Your task to perform on an android device: What's the weather going to be this weekend? Image 0: 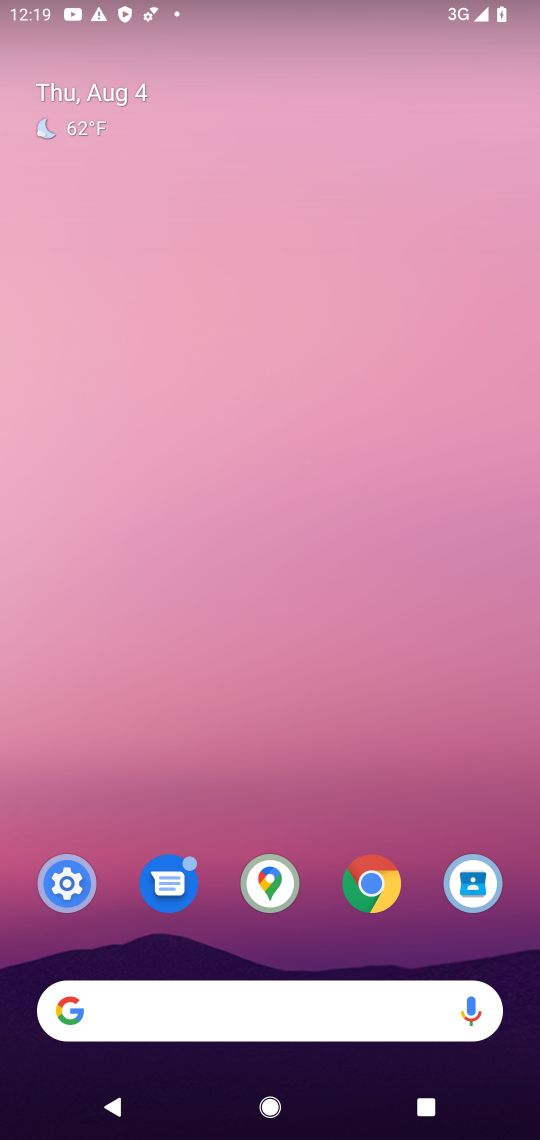
Step 0: drag from (226, 925) to (275, 674)
Your task to perform on an android device: What's the weather going to be this weekend? Image 1: 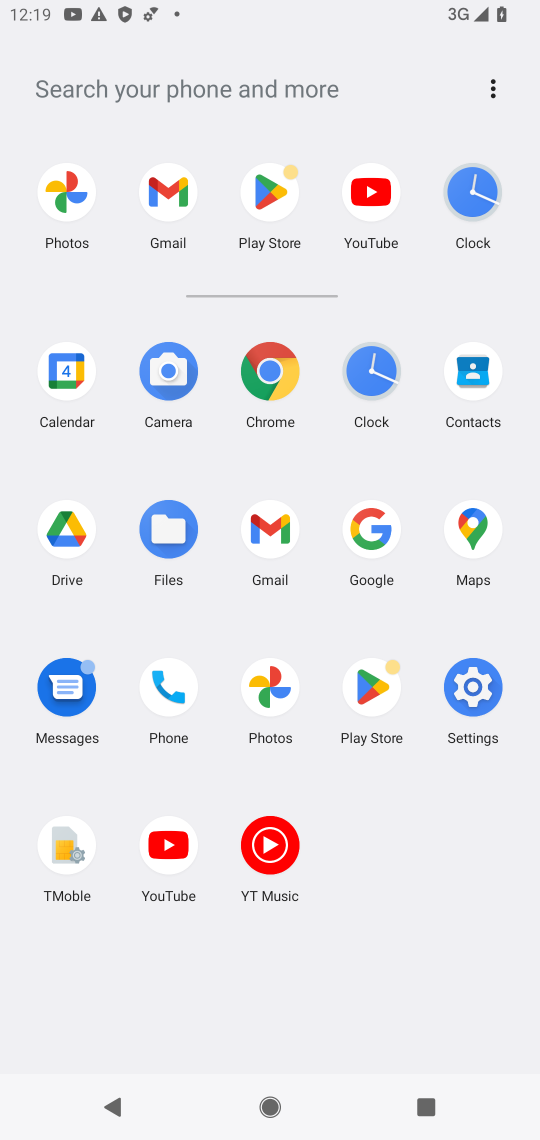
Step 1: click (453, 684)
Your task to perform on an android device: What's the weather going to be this weekend? Image 2: 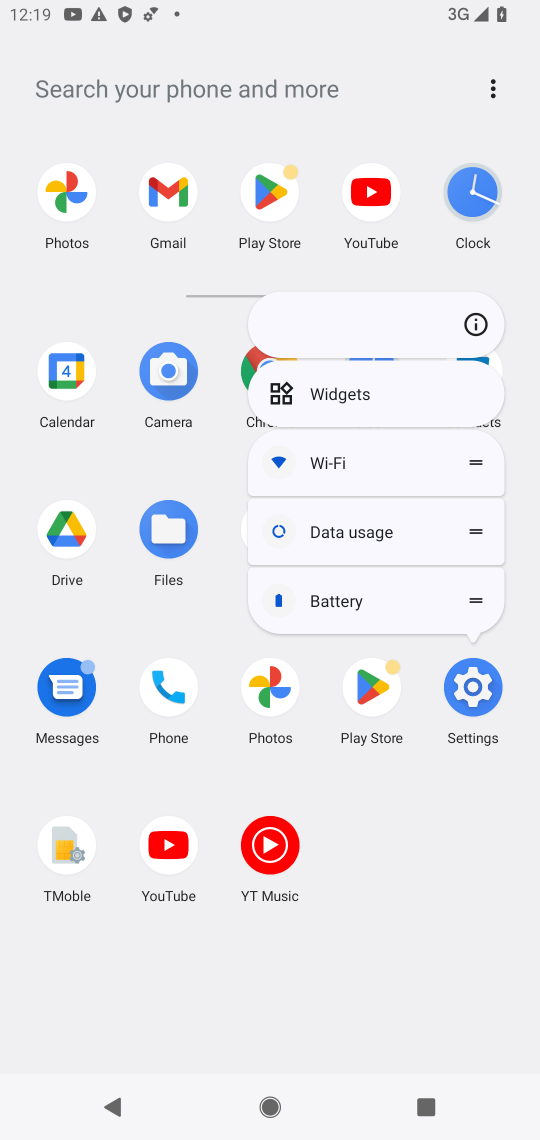
Step 2: click (461, 327)
Your task to perform on an android device: What's the weather going to be this weekend? Image 3: 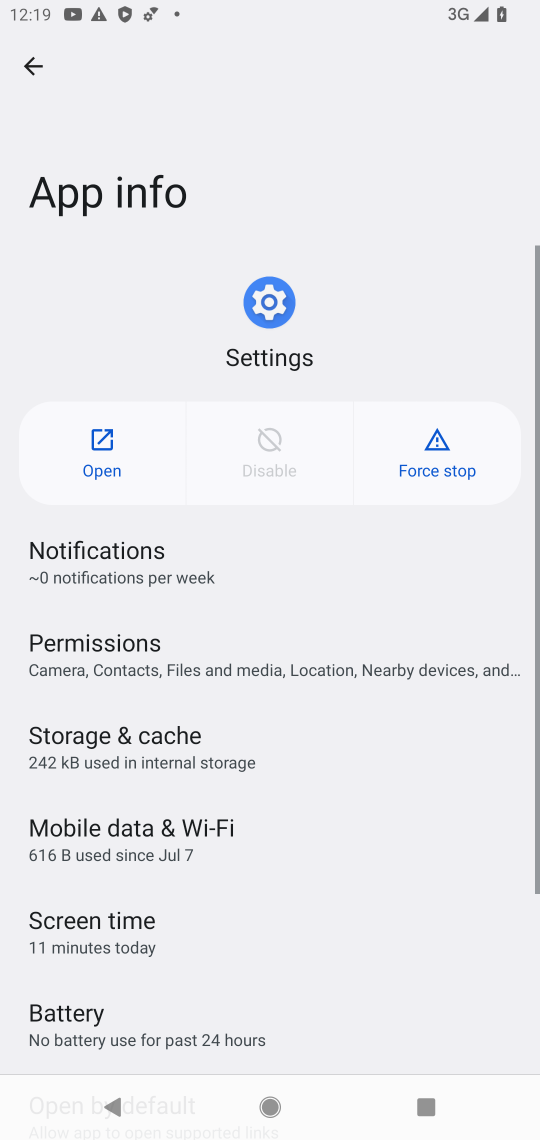
Step 3: click (102, 454)
Your task to perform on an android device: What's the weather going to be this weekend? Image 4: 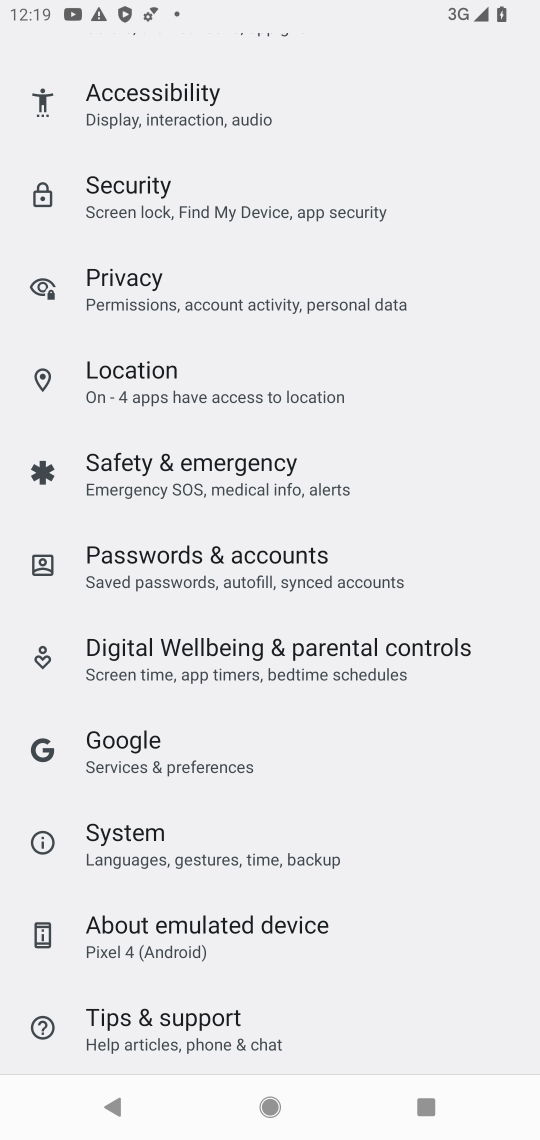
Step 4: press home button
Your task to perform on an android device: What's the weather going to be this weekend? Image 5: 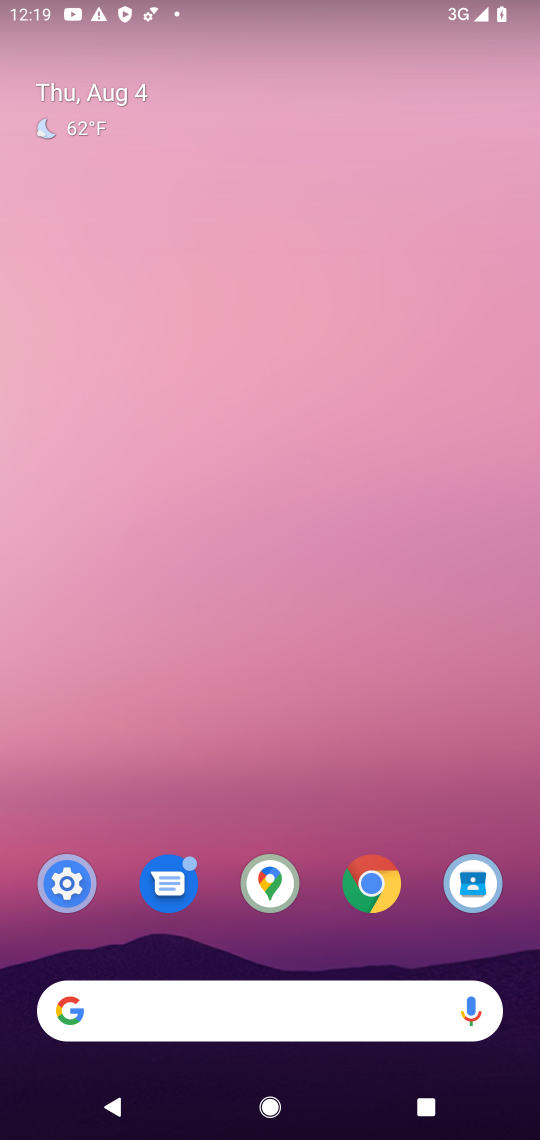
Step 5: drag from (234, 1002) to (239, 436)
Your task to perform on an android device: What's the weather going to be this weekend? Image 6: 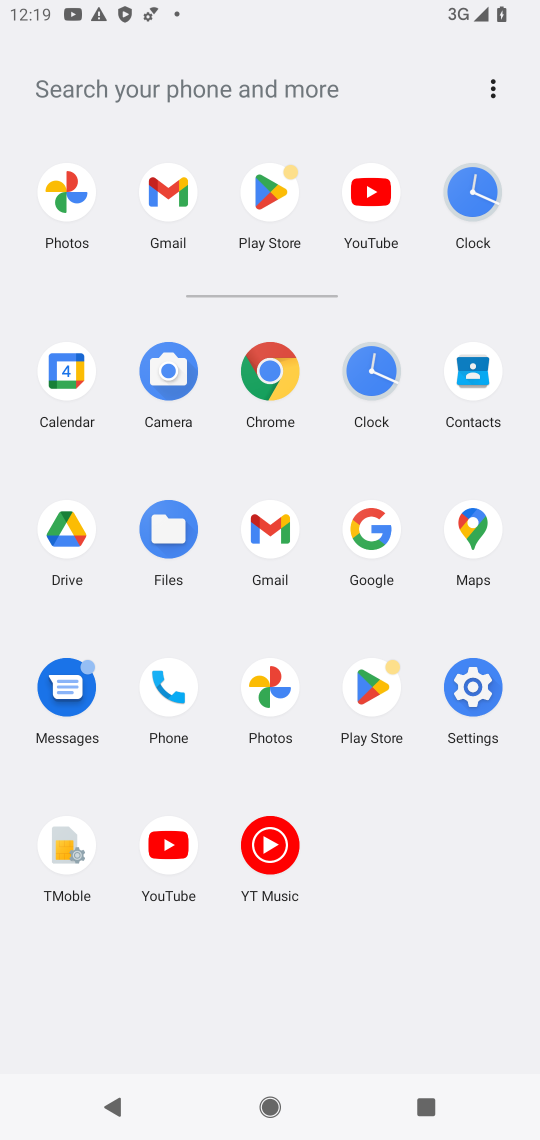
Step 6: click (171, 82)
Your task to perform on an android device: What's the weather going to be this weekend? Image 7: 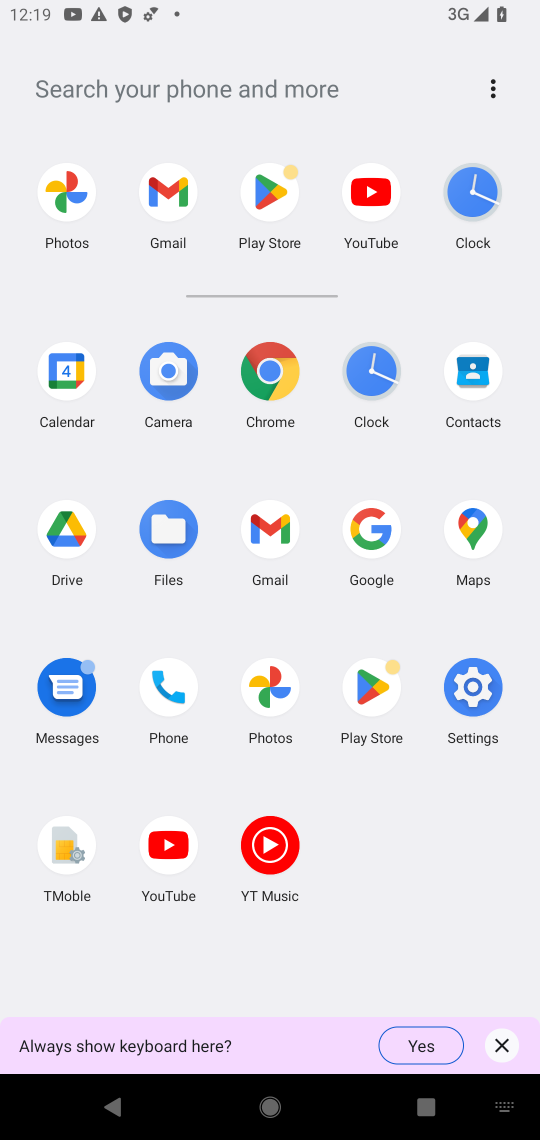
Step 7: type "What's the weather going to be this weekend?"
Your task to perform on an android device: What's the weather going to be this weekend? Image 8: 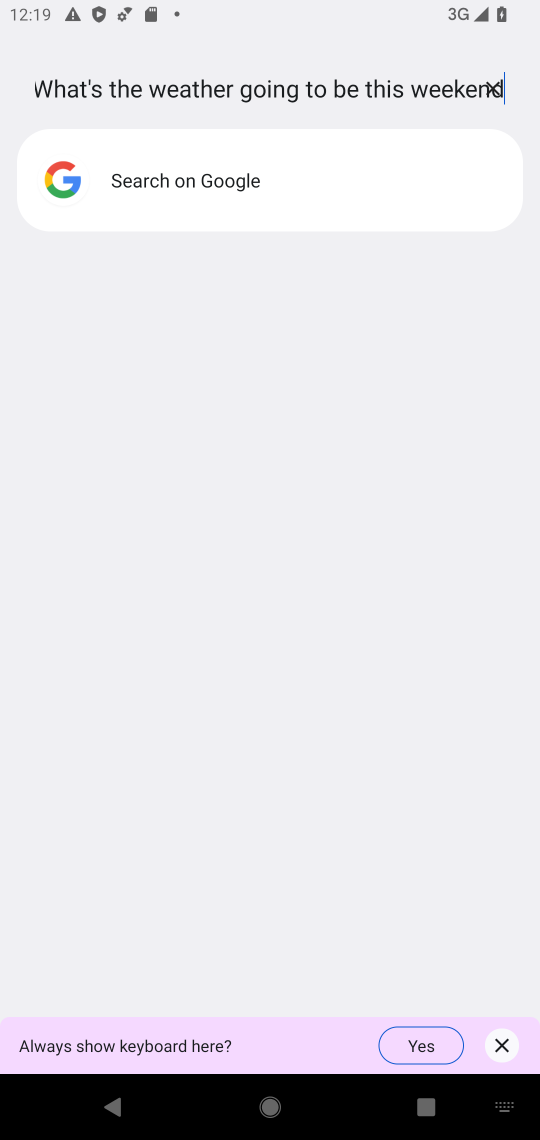
Step 8: type ""
Your task to perform on an android device: What's the weather going to be this weekend? Image 9: 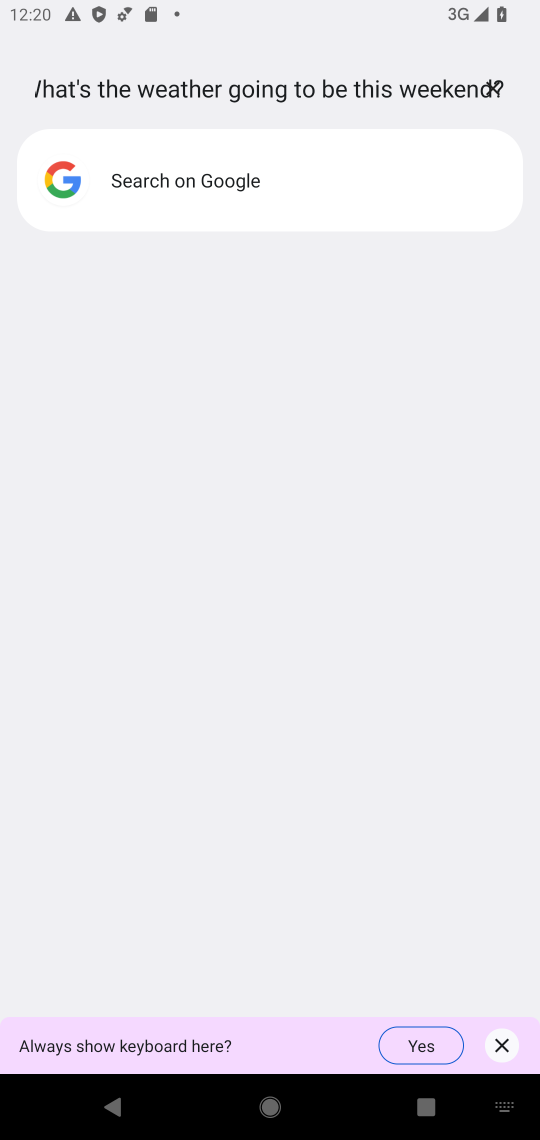
Step 9: click (101, 87)
Your task to perform on an android device: What's the weather going to be this weekend? Image 10: 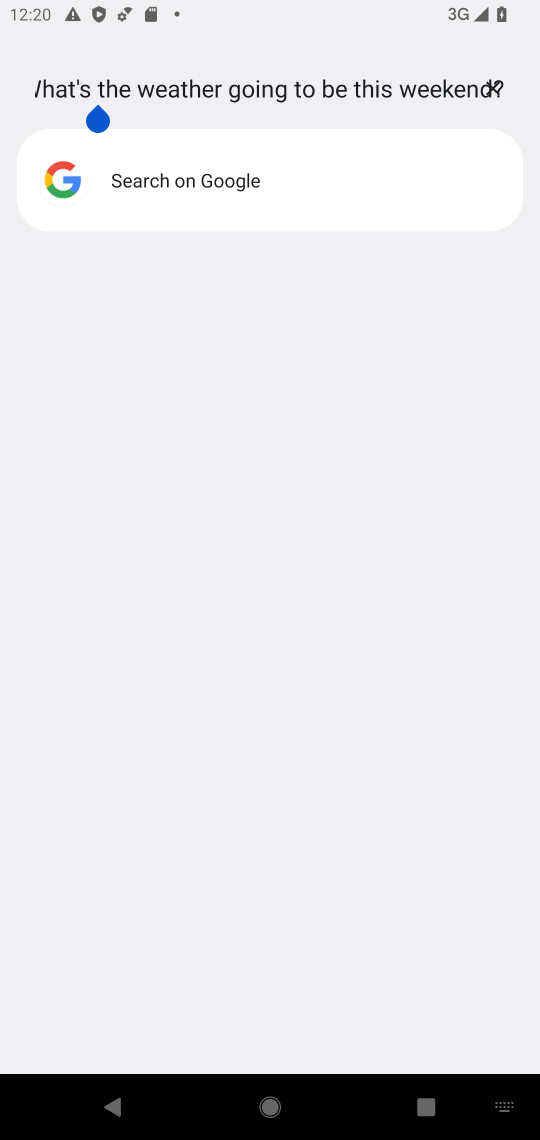
Step 10: click (161, 167)
Your task to perform on an android device: What's the weather going to be this weekend? Image 11: 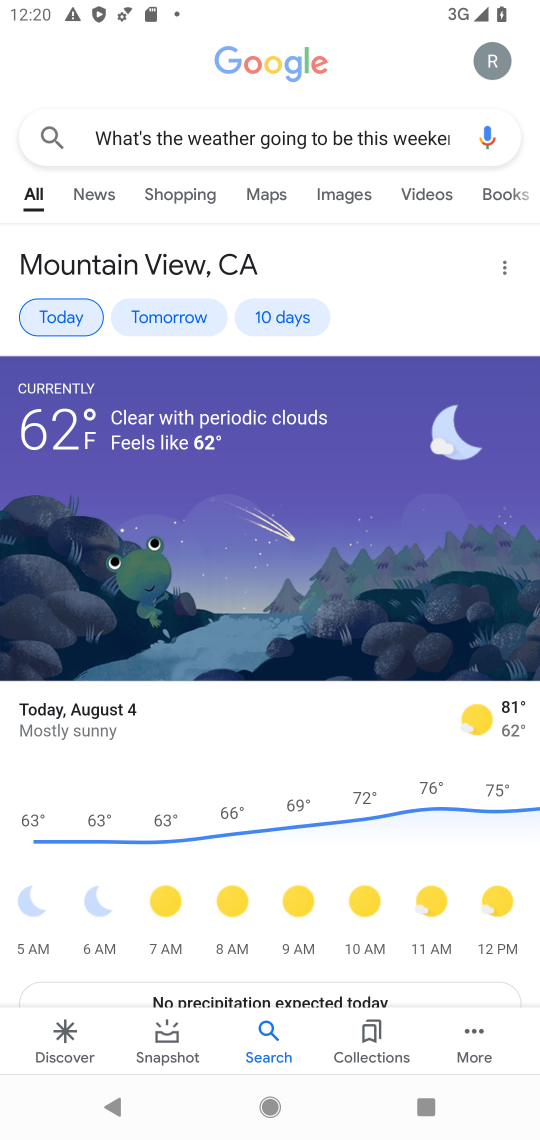
Step 11: task complete